Your task to perform on an android device: Open Amazon Image 0: 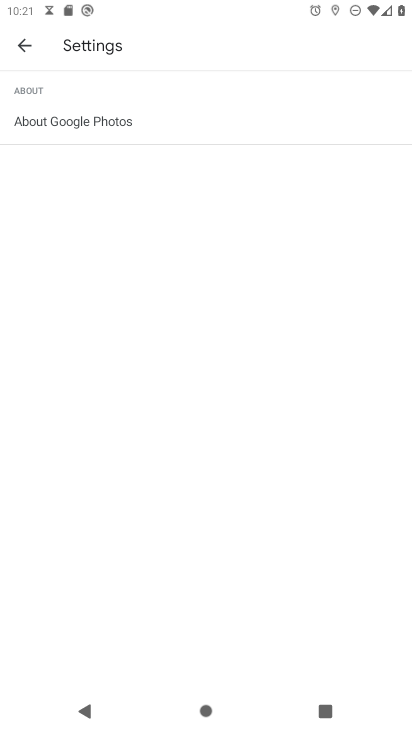
Step 0: press back button
Your task to perform on an android device: Open Amazon Image 1: 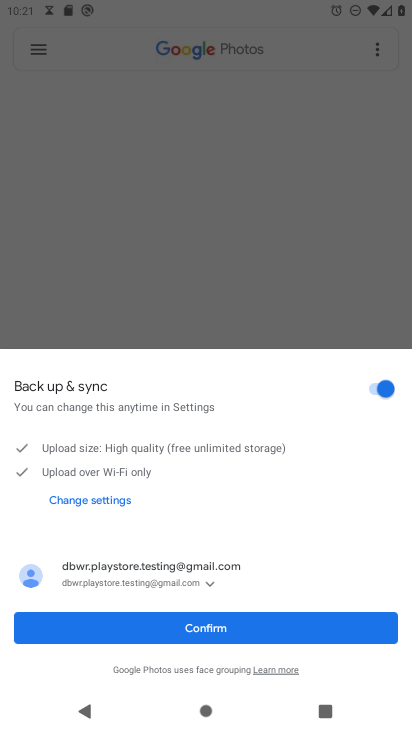
Step 1: press back button
Your task to perform on an android device: Open Amazon Image 2: 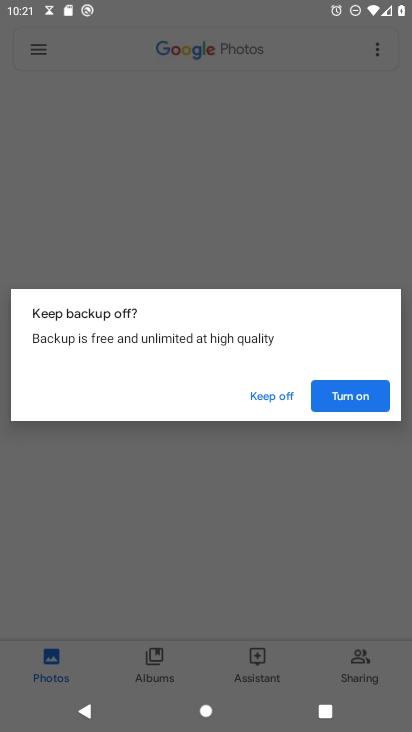
Step 2: press back button
Your task to perform on an android device: Open Amazon Image 3: 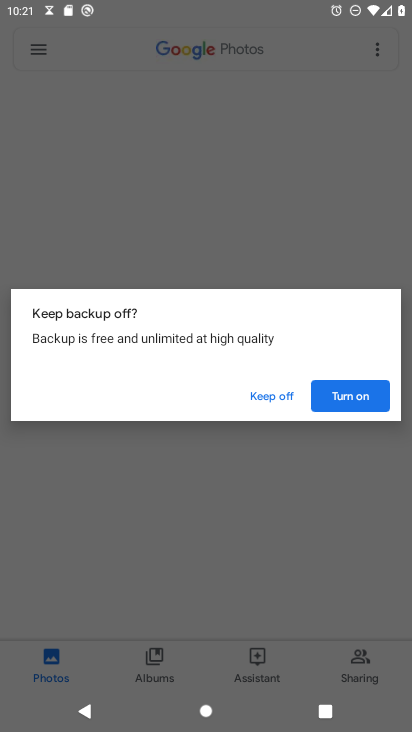
Step 3: press back button
Your task to perform on an android device: Open Amazon Image 4: 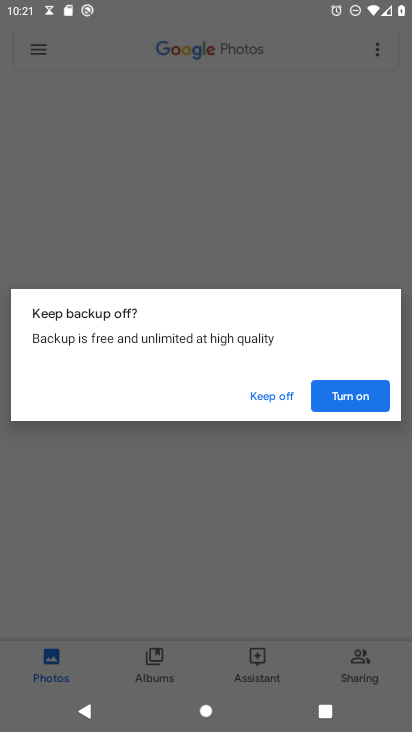
Step 4: press back button
Your task to perform on an android device: Open Amazon Image 5: 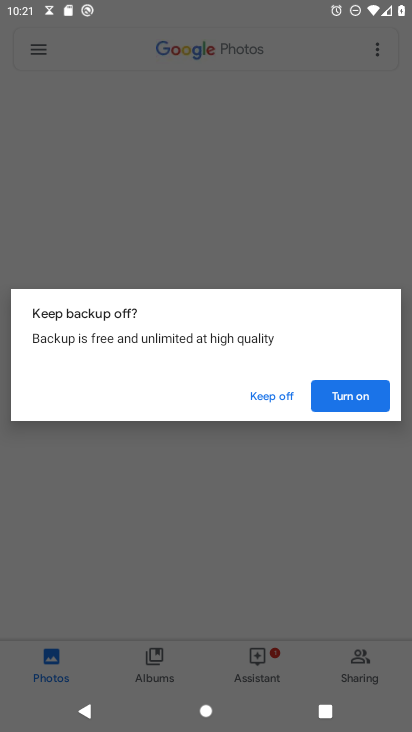
Step 5: press back button
Your task to perform on an android device: Open Amazon Image 6: 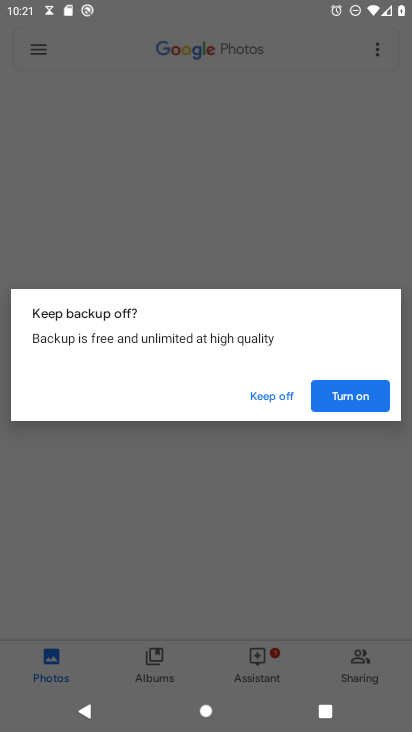
Step 6: press back button
Your task to perform on an android device: Open Amazon Image 7: 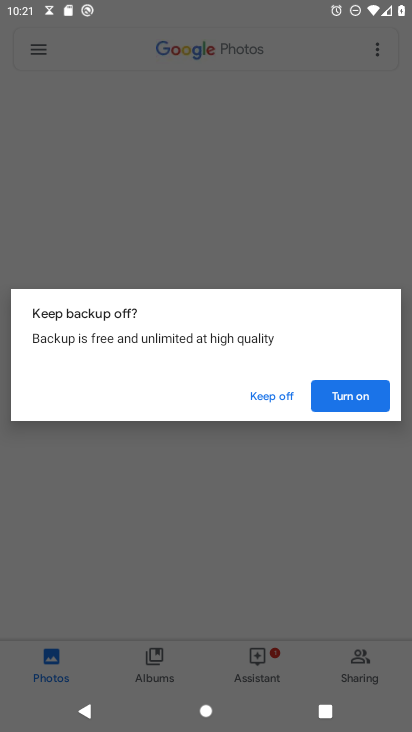
Step 7: press home button
Your task to perform on an android device: Open Amazon Image 8: 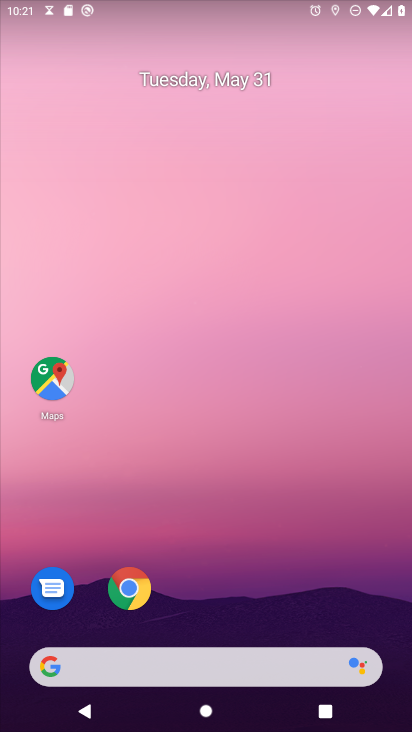
Step 8: click (130, 591)
Your task to perform on an android device: Open Amazon Image 9: 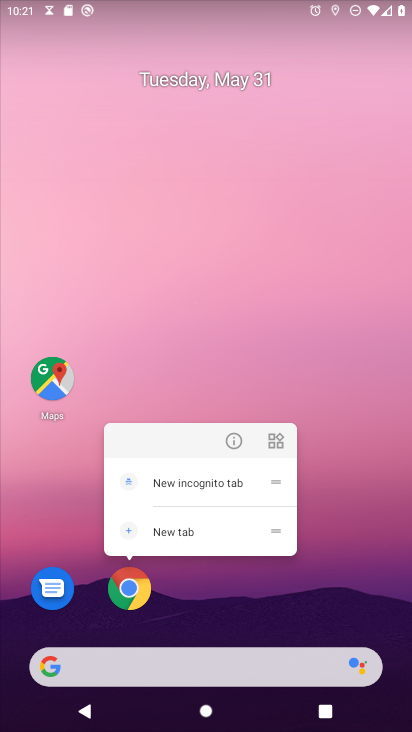
Step 9: click (130, 591)
Your task to perform on an android device: Open Amazon Image 10: 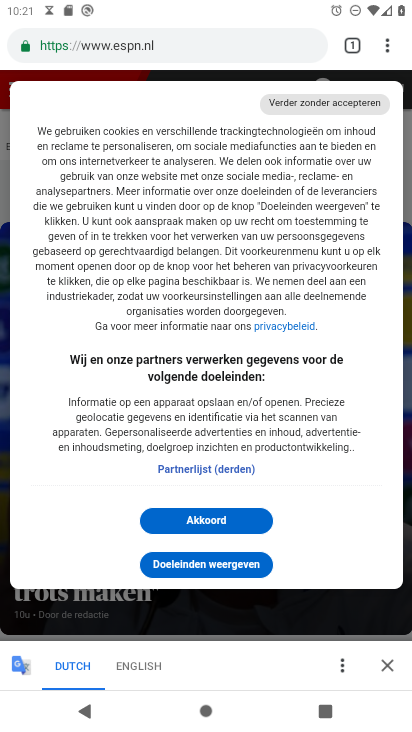
Step 10: click (271, 50)
Your task to perform on an android device: Open Amazon Image 11: 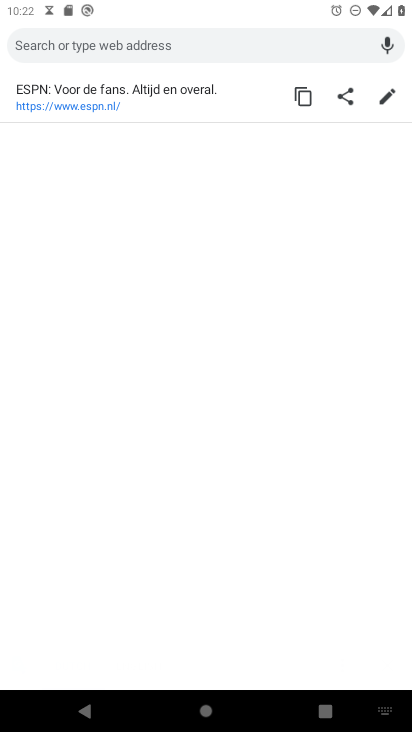
Step 11: type "Amazon"
Your task to perform on an android device: Open Amazon Image 12: 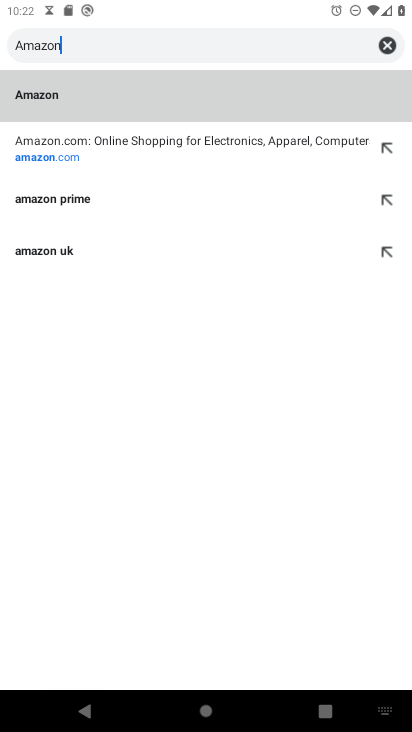
Step 12: click (186, 99)
Your task to perform on an android device: Open Amazon Image 13: 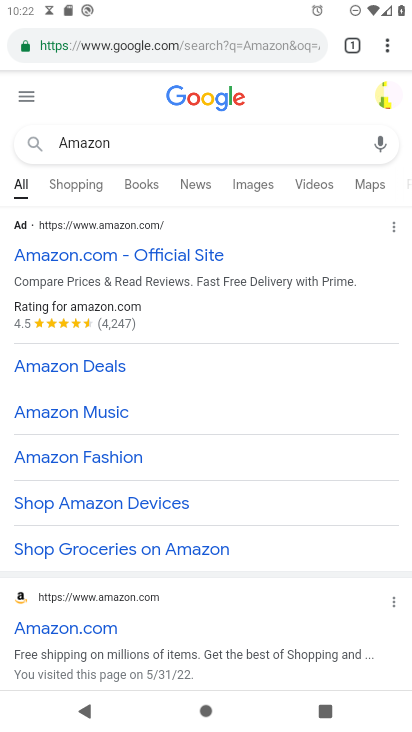
Step 13: click (172, 250)
Your task to perform on an android device: Open Amazon Image 14: 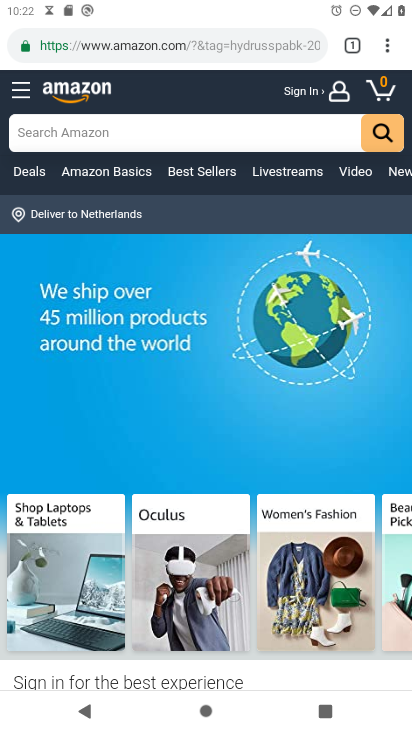
Step 14: task complete